Your task to perform on an android device: Open internet settings Image 0: 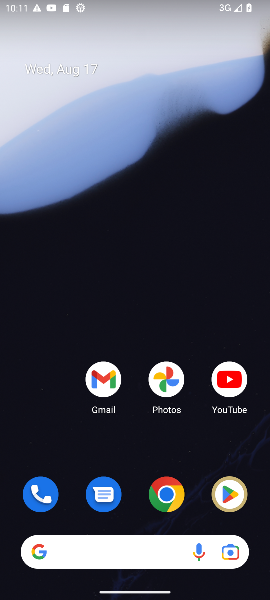
Step 0: drag from (139, 414) to (164, 82)
Your task to perform on an android device: Open internet settings Image 1: 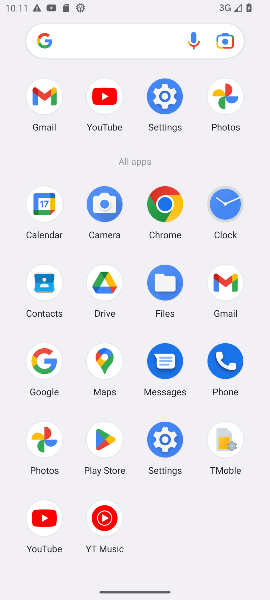
Step 1: click (172, 437)
Your task to perform on an android device: Open internet settings Image 2: 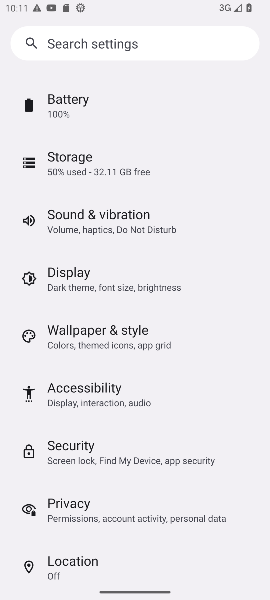
Step 2: drag from (142, 251) to (128, 590)
Your task to perform on an android device: Open internet settings Image 3: 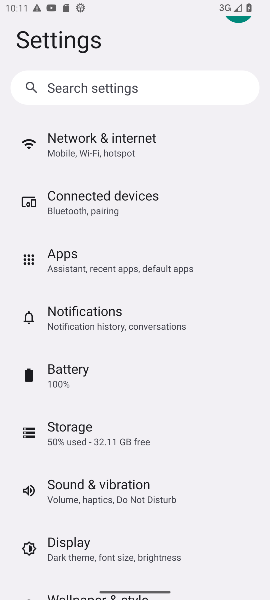
Step 3: click (80, 143)
Your task to perform on an android device: Open internet settings Image 4: 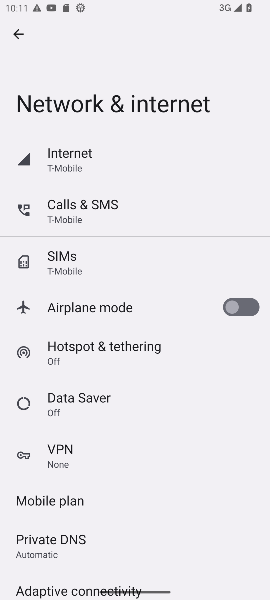
Step 4: task complete